Your task to perform on an android device: toggle priority inbox in the gmail app Image 0: 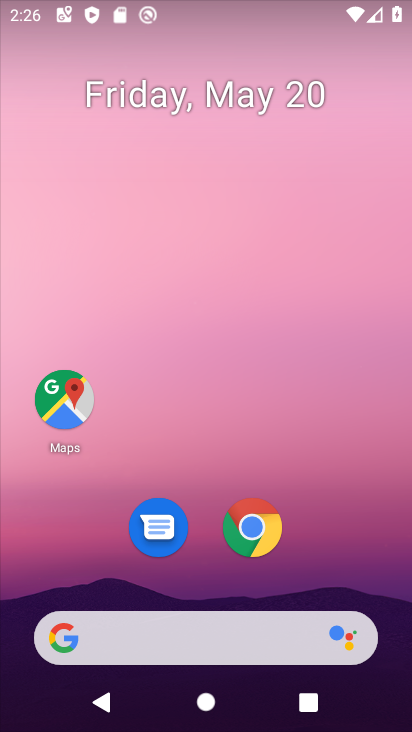
Step 0: drag from (280, 627) to (340, 118)
Your task to perform on an android device: toggle priority inbox in the gmail app Image 1: 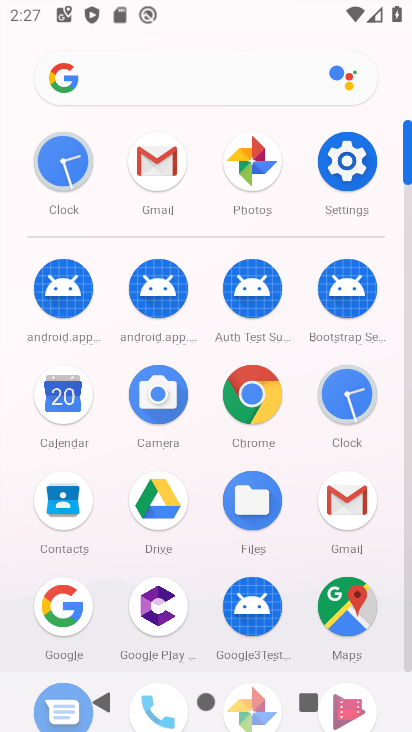
Step 1: click (168, 175)
Your task to perform on an android device: toggle priority inbox in the gmail app Image 2: 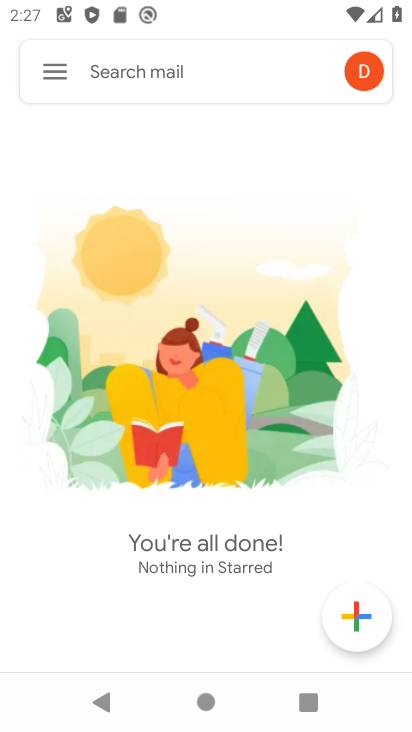
Step 2: click (47, 72)
Your task to perform on an android device: toggle priority inbox in the gmail app Image 3: 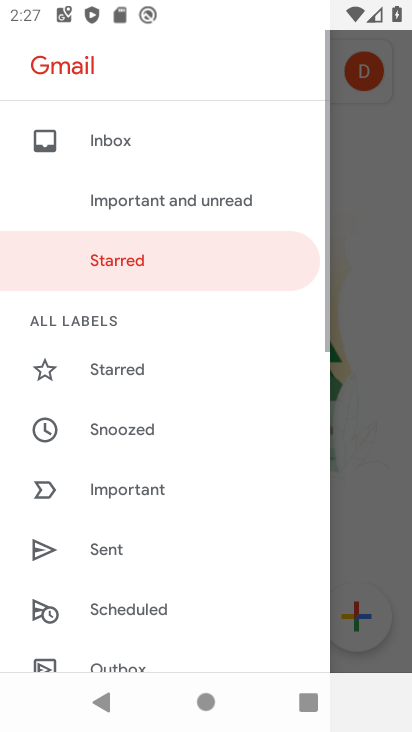
Step 3: drag from (134, 622) to (198, 97)
Your task to perform on an android device: toggle priority inbox in the gmail app Image 4: 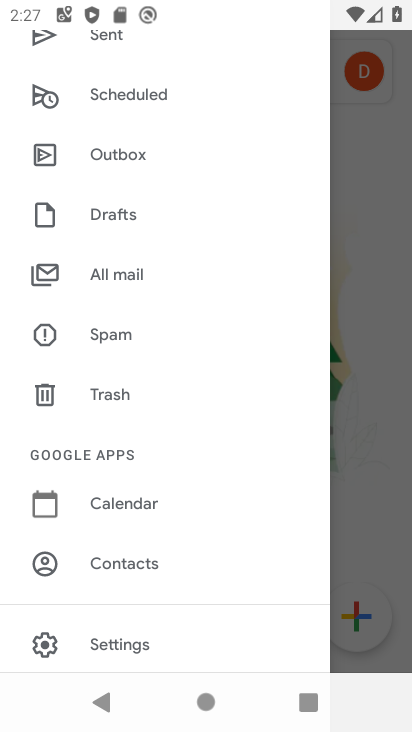
Step 4: click (161, 652)
Your task to perform on an android device: toggle priority inbox in the gmail app Image 5: 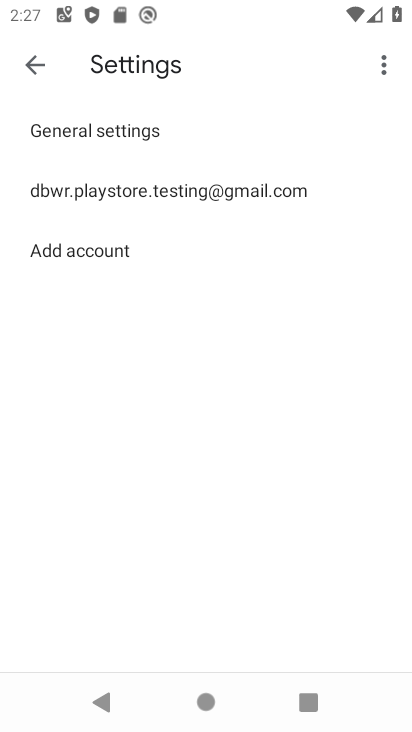
Step 5: click (181, 184)
Your task to perform on an android device: toggle priority inbox in the gmail app Image 6: 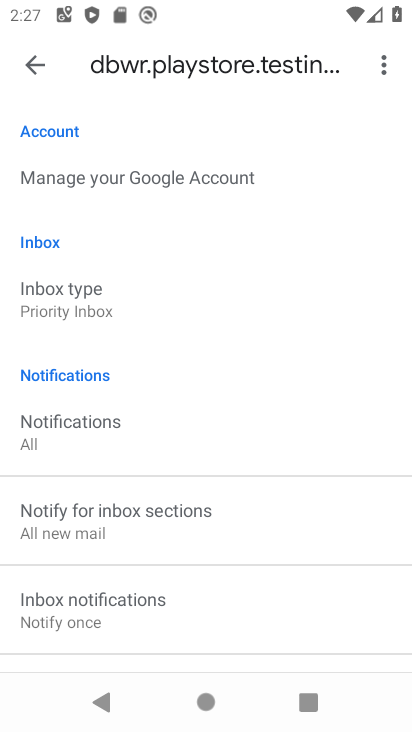
Step 6: click (58, 301)
Your task to perform on an android device: toggle priority inbox in the gmail app Image 7: 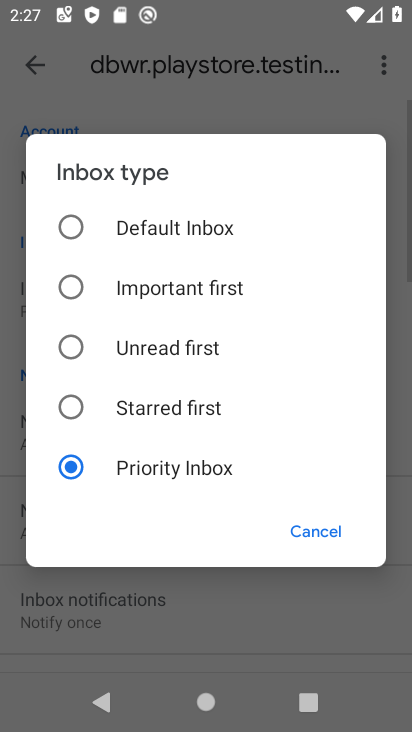
Step 7: click (194, 217)
Your task to perform on an android device: toggle priority inbox in the gmail app Image 8: 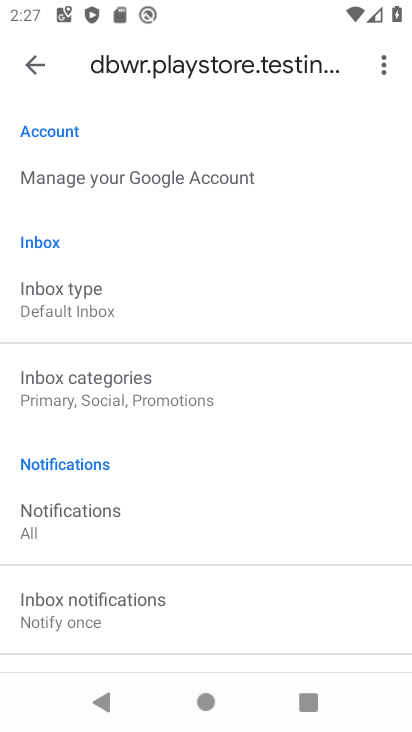
Step 8: task complete